Your task to perform on an android device: turn on showing notifications on the lock screen Image 0: 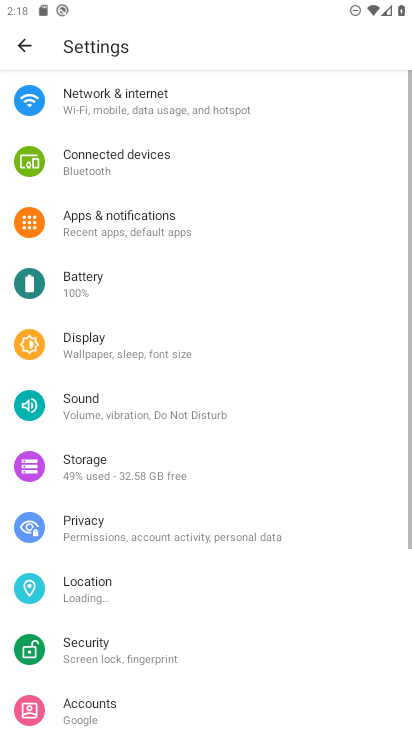
Step 0: press home button
Your task to perform on an android device: turn on showing notifications on the lock screen Image 1: 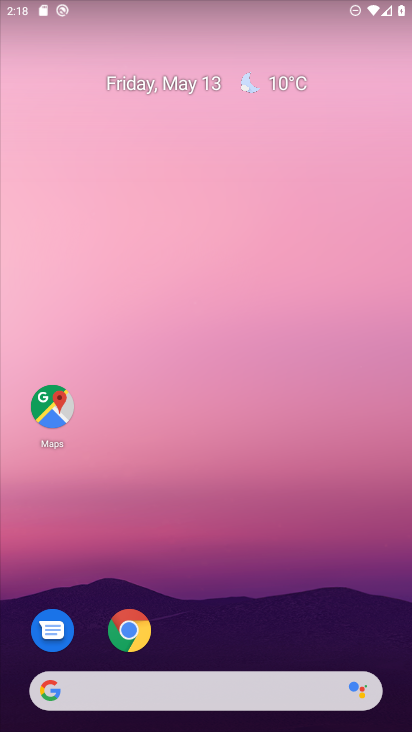
Step 1: drag from (225, 656) to (243, 79)
Your task to perform on an android device: turn on showing notifications on the lock screen Image 2: 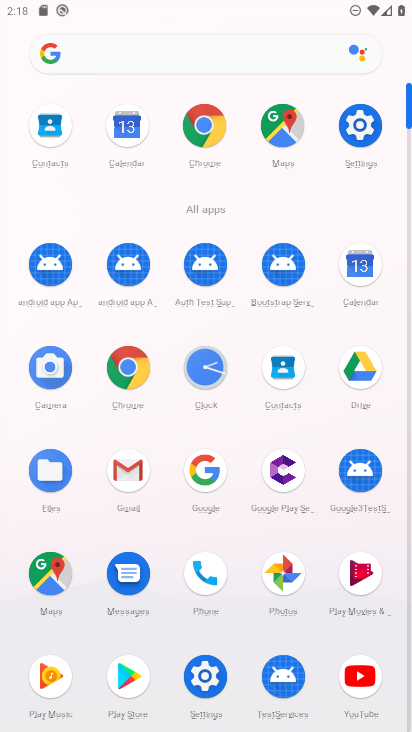
Step 2: click (358, 129)
Your task to perform on an android device: turn on showing notifications on the lock screen Image 3: 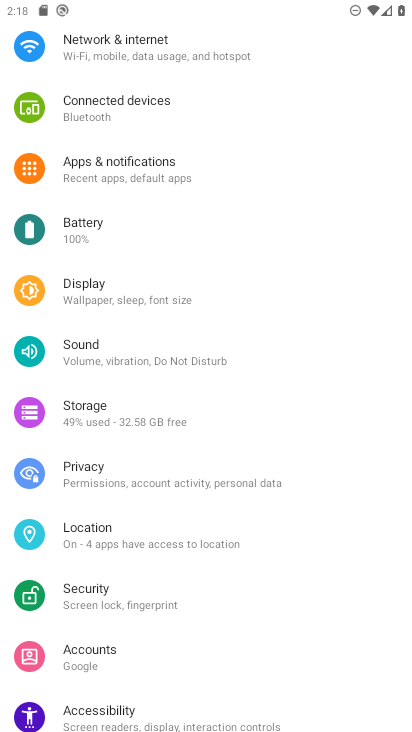
Step 3: click (187, 164)
Your task to perform on an android device: turn on showing notifications on the lock screen Image 4: 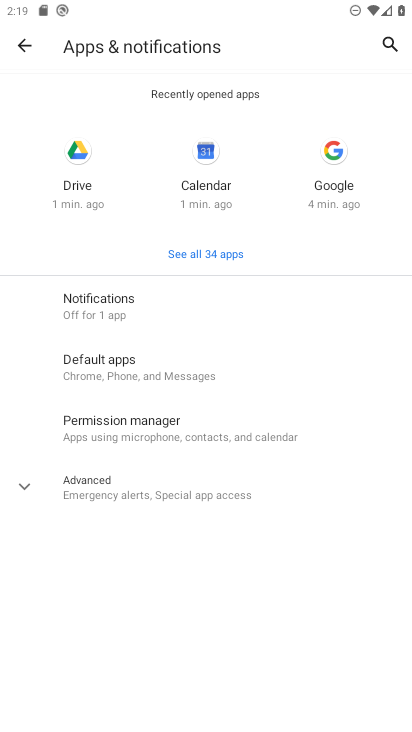
Step 4: click (134, 306)
Your task to perform on an android device: turn on showing notifications on the lock screen Image 5: 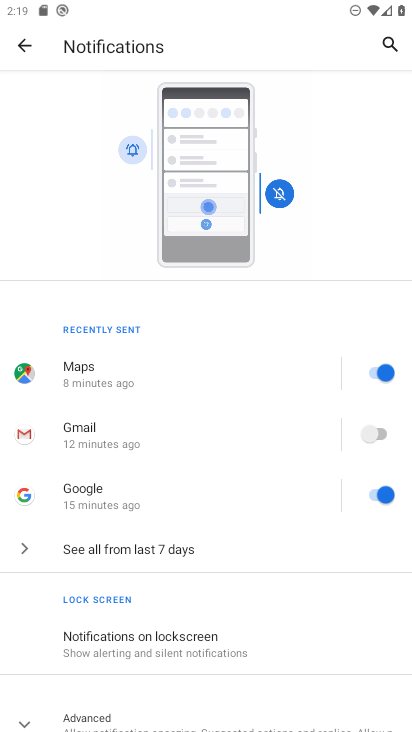
Step 5: drag from (214, 665) to (239, 242)
Your task to perform on an android device: turn on showing notifications on the lock screen Image 6: 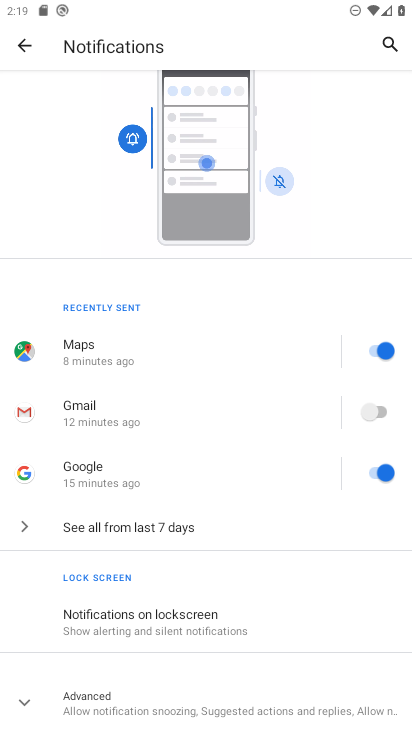
Step 6: click (24, 701)
Your task to perform on an android device: turn on showing notifications on the lock screen Image 7: 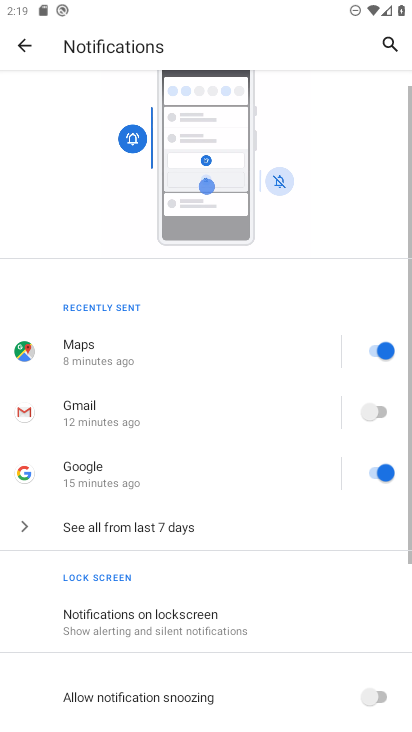
Step 7: click (219, 619)
Your task to perform on an android device: turn on showing notifications on the lock screen Image 8: 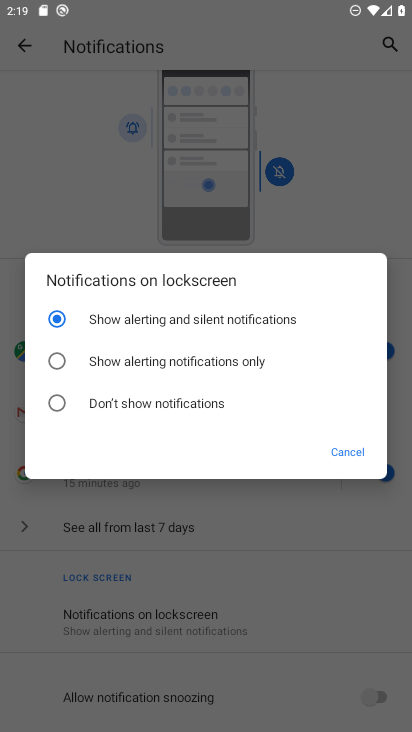
Step 8: task complete